Your task to perform on an android device: Open accessibility settings Image 0: 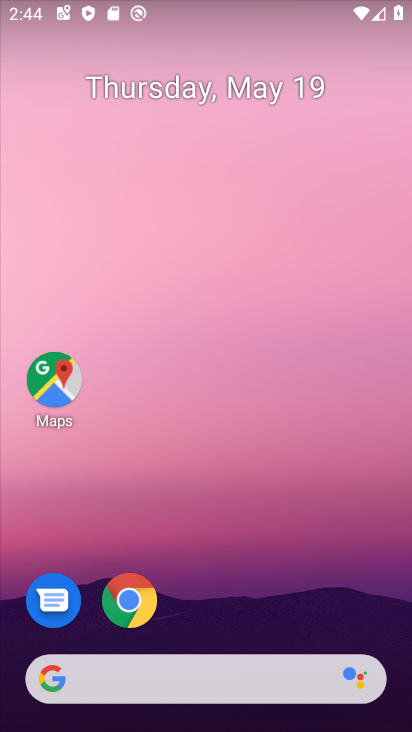
Step 0: drag from (400, 576) to (351, 169)
Your task to perform on an android device: Open accessibility settings Image 1: 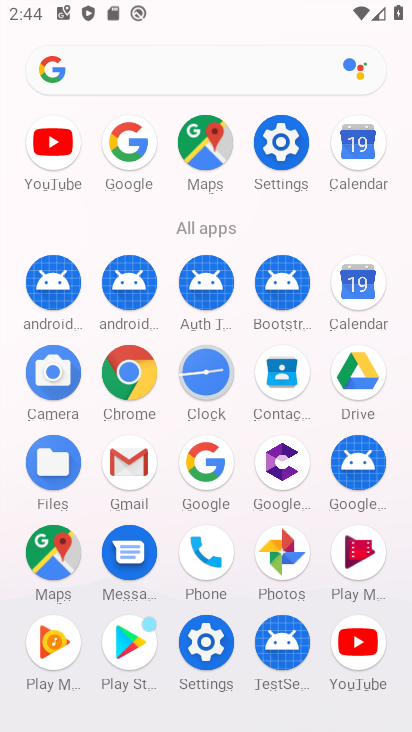
Step 1: click (285, 144)
Your task to perform on an android device: Open accessibility settings Image 2: 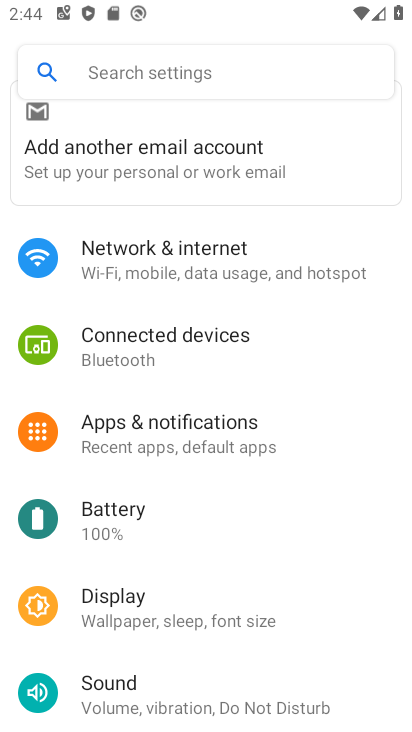
Step 2: drag from (342, 433) to (331, 338)
Your task to perform on an android device: Open accessibility settings Image 3: 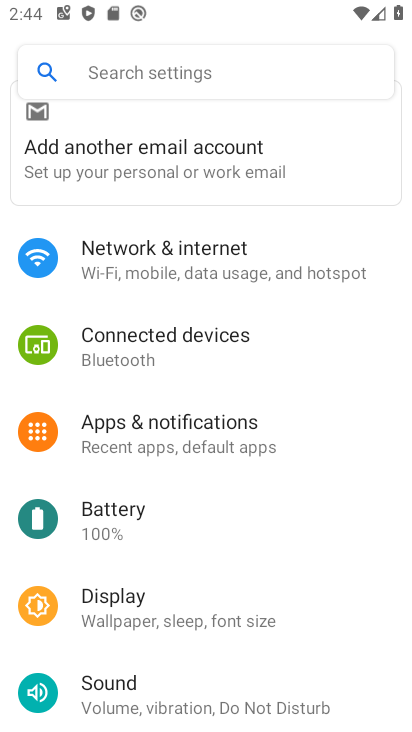
Step 3: drag from (371, 687) to (374, 260)
Your task to perform on an android device: Open accessibility settings Image 4: 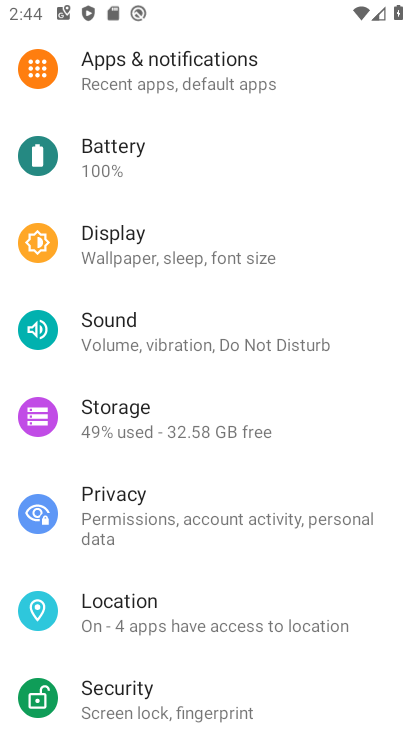
Step 4: drag from (361, 684) to (379, 266)
Your task to perform on an android device: Open accessibility settings Image 5: 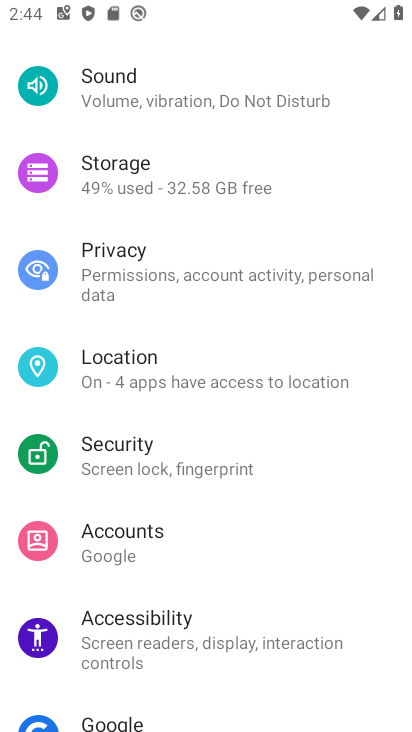
Step 5: click (109, 644)
Your task to perform on an android device: Open accessibility settings Image 6: 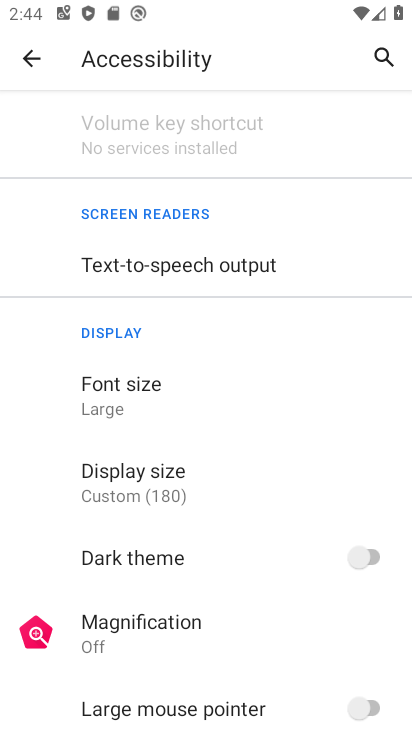
Step 6: task complete